Your task to perform on an android device: Go to display settings Image 0: 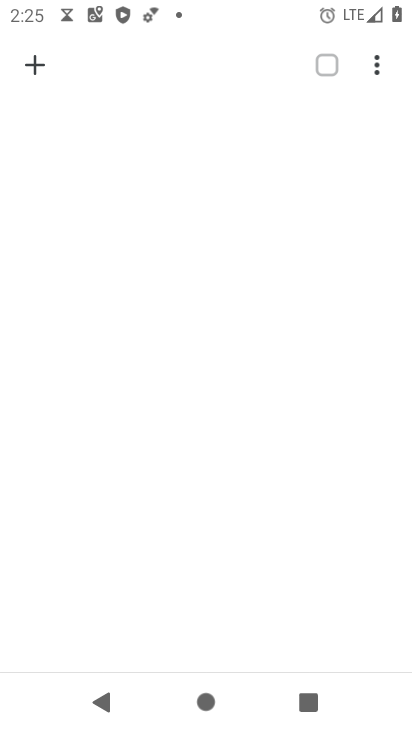
Step 0: press back button
Your task to perform on an android device: Go to display settings Image 1: 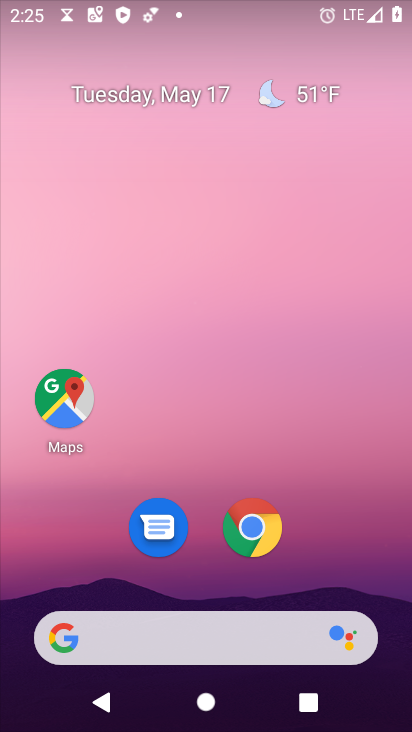
Step 1: drag from (322, 542) to (212, 114)
Your task to perform on an android device: Go to display settings Image 2: 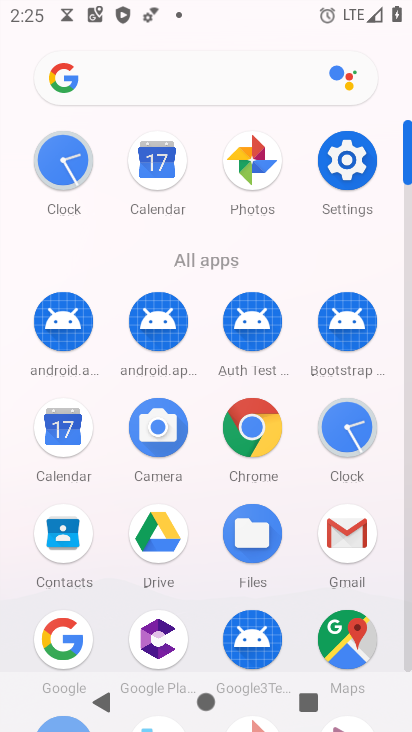
Step 2: click (346, 158)
Your task to perform on an android device: Go to display settings Image 3: 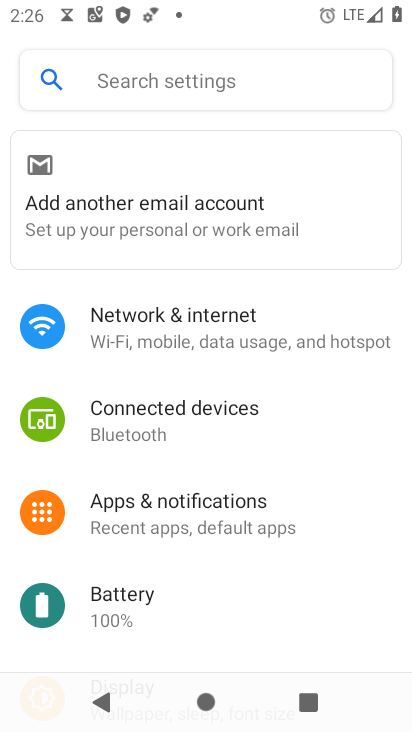
Step 3: drag from (184, 450) to (230, 340)
Your task to perform on an android device: Go to display settings Image 4: 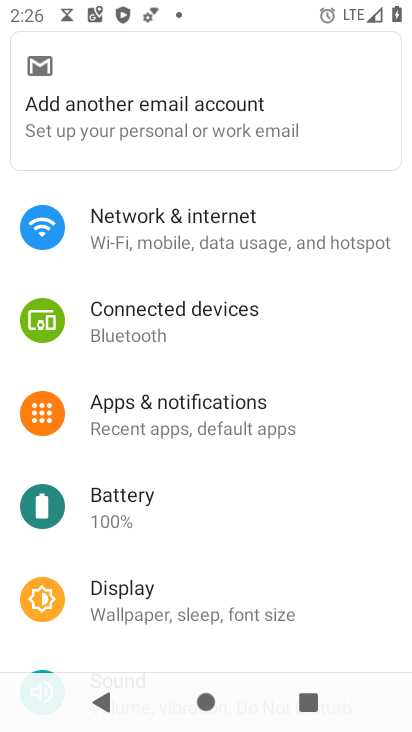
Step 4: drag from (162, 529) to (229, 414)
Your task to perform on an android device: Go to display settings Image 5: 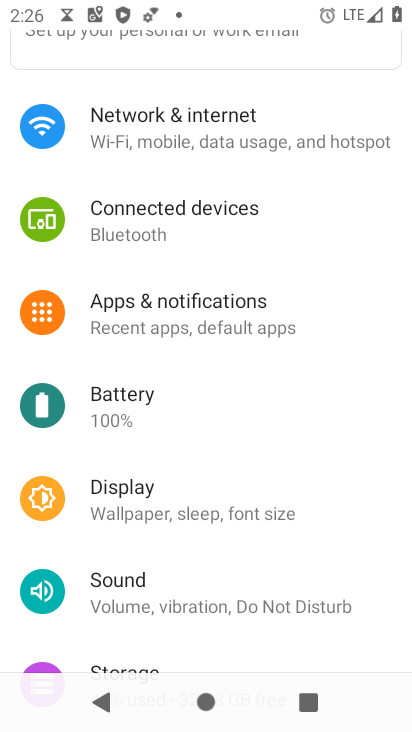
Step 5: click (138, 494)
Your task to perform on an android device: Go to display settings Image 6: 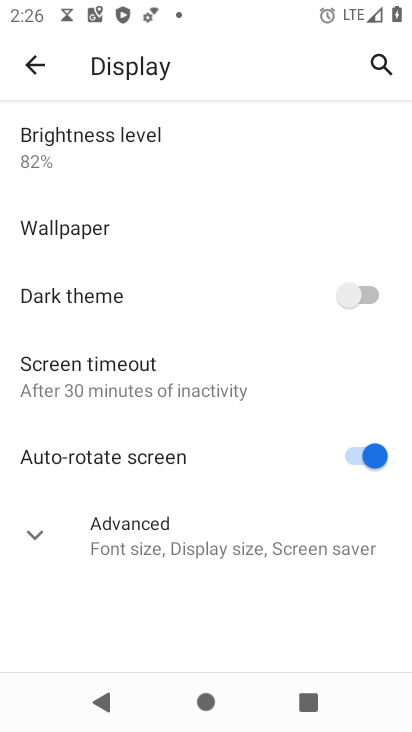
Step 6: task complete